Your task to perform on an android device: Search for Mexican restaurants on Maps Image 0: 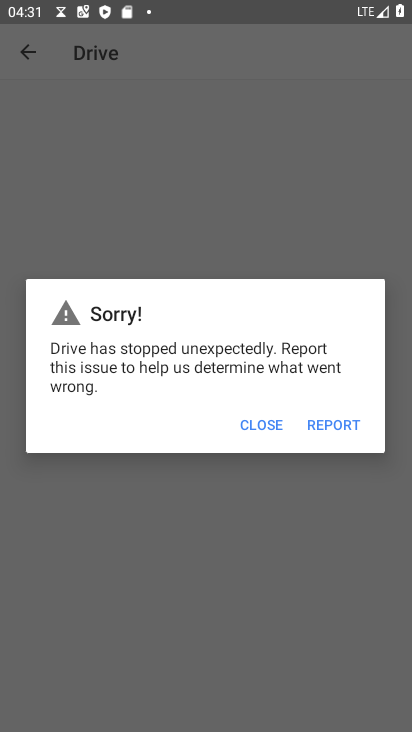
Step 0: press back button
Your task to perform on an android device: Search for Mexican restaurants on Maps Image 1: 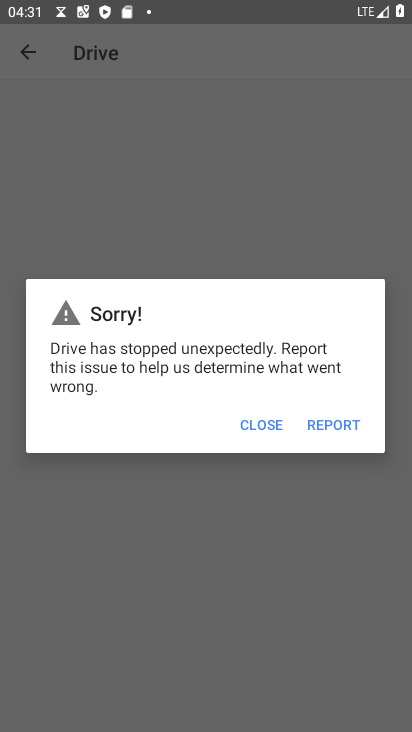
Step 1: press back button
Your task to perform on an android device: Search for Mexican restaurants on Maps Image 2: 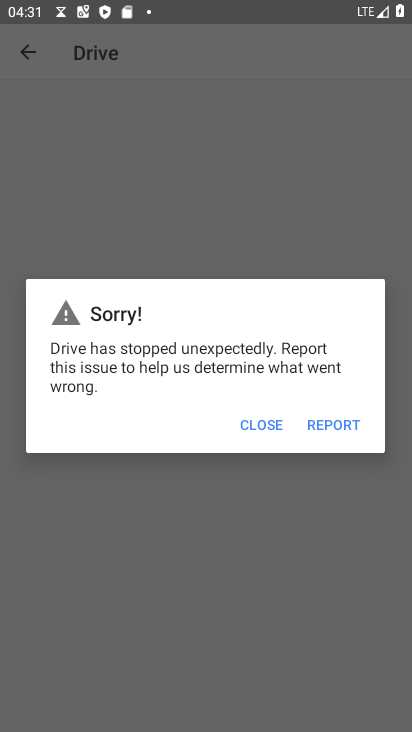
Step 2: press back button
Your task to perform on an android device: Search for Mexican restaurants on Maps Image 3: 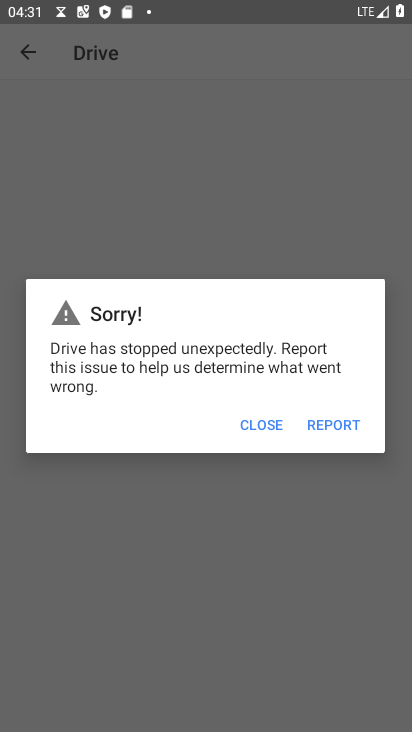
Step 3: press home button
Your task to perform on an android device: Search for Mexican restaurants on Maps Image 4: 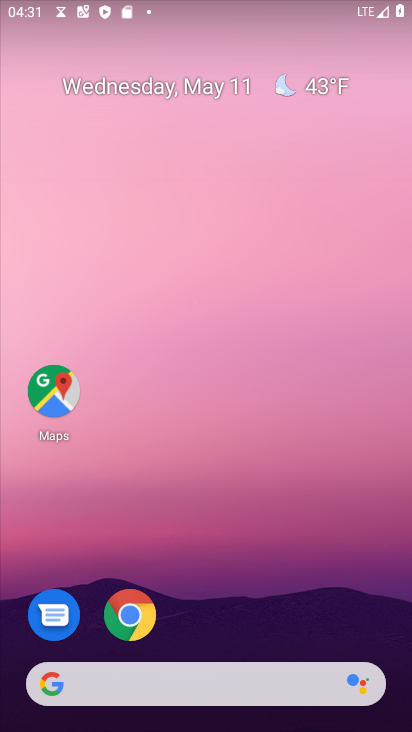
Step 4: drag from (270, 578) to (223, 7)
Your task to perform on an android device: Search for Mexican restaurants on Maps Image 5: 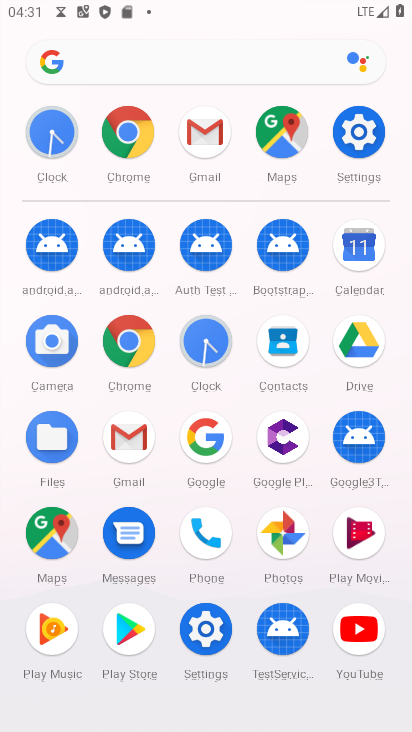
Step 5: drag from (18, 576) to (10, 177)
Your task to perform on an android device: Search for Mexican restaurants on Maps Image 6: 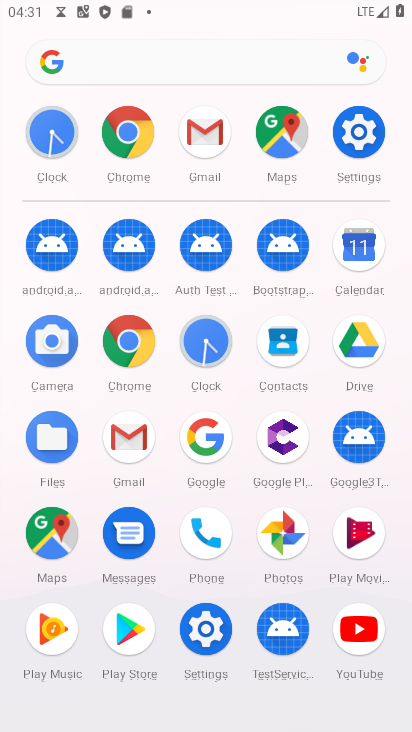
Step 6: click (52, 529)
Your task to perform on an android device: Search for Mexican restaurants on Maps Image 7: 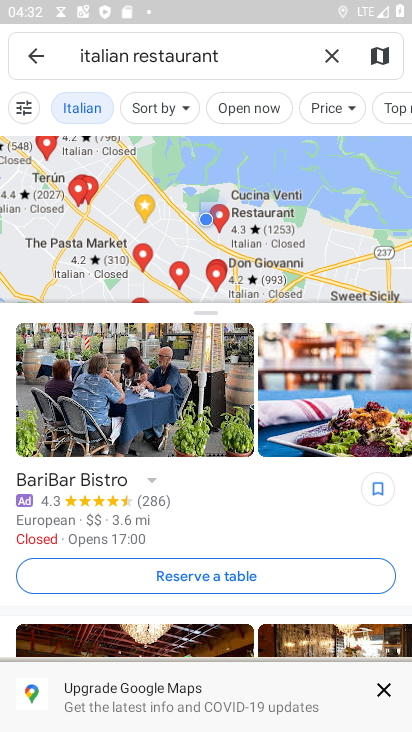
Step 7: click (330, 49)
Your task to perform on an android device: Search for Mexican restaurants on Maps Image 8: 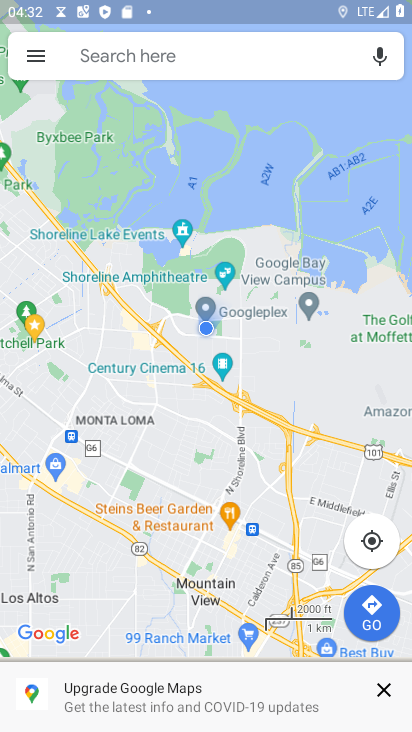
Step 8: click (261, 58)
Your task to perform on an android device: Search for Mexican restaurants on Maps Image 9: 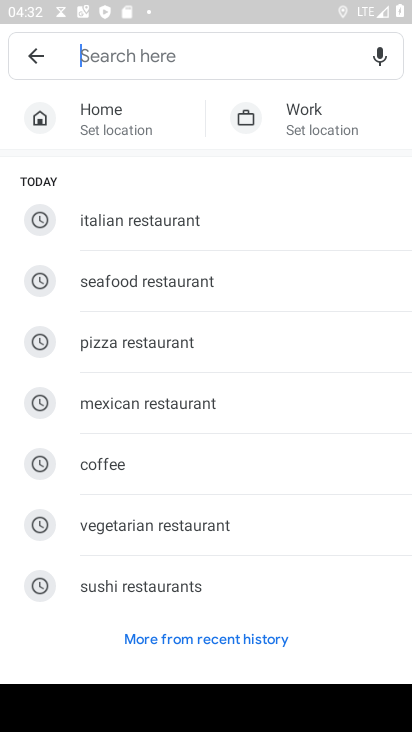
Step 9: click (196, 390)
Your task to perform on an android device: Search for Mexican restaurants on Maps Image 10: 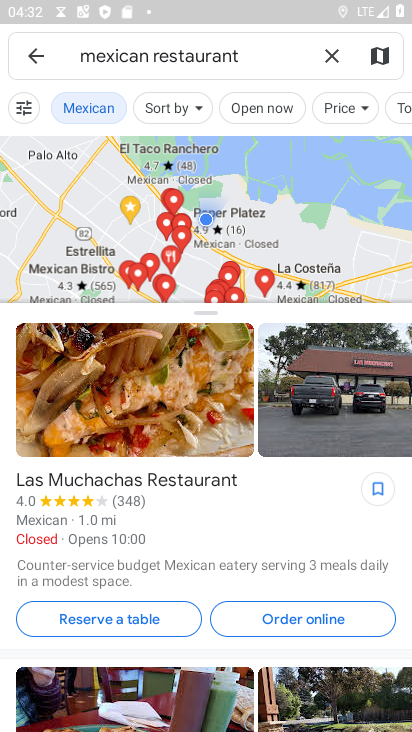
Step 10: task complete